Your task to perform on an android device: see creations saved in the google photos Image 0: 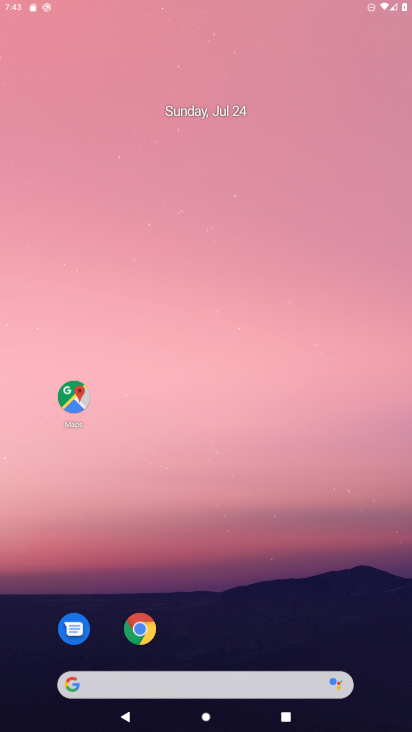
Step 0: click (203, 18)
Your task to perform on an android device: see creations saved in the google photos Image 1: 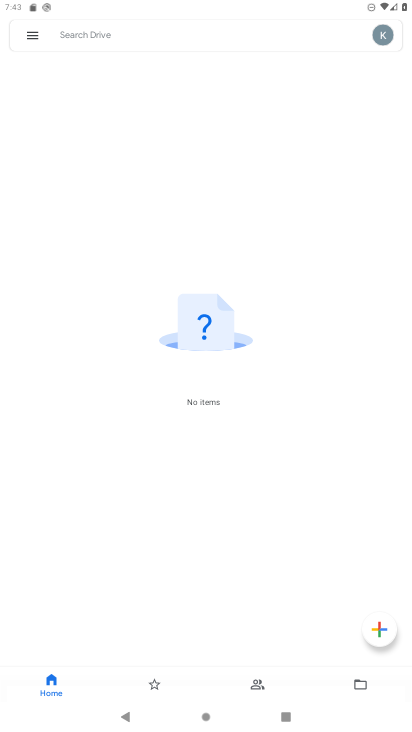
Step 1: press home button
Your task to perform on an android device: see creations saved in the google photos Image 2: 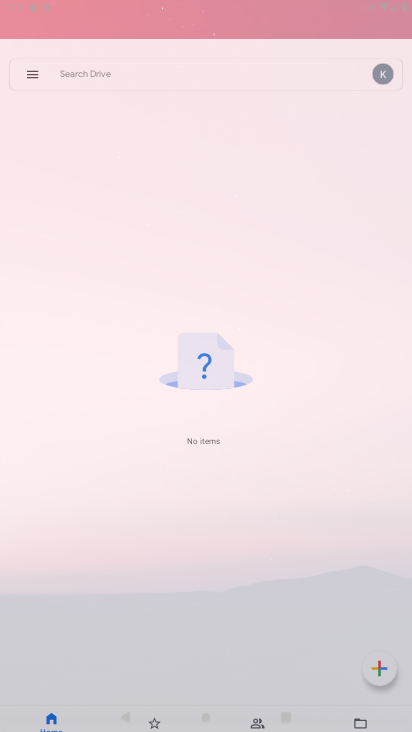
Step 2: drag from (326, 615) to (161, 4)
Your task to perform on an android device: see creations saved in the google photos Image 3: 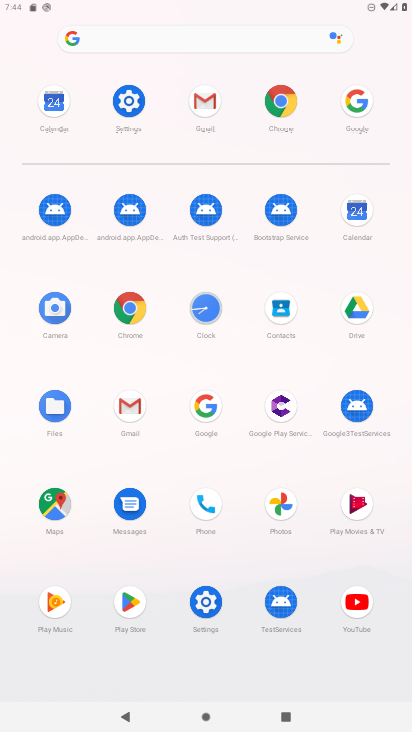
Step 3: click (268, 510)
Your task to perform on an android device: see creations saved in the google photos Image 4: 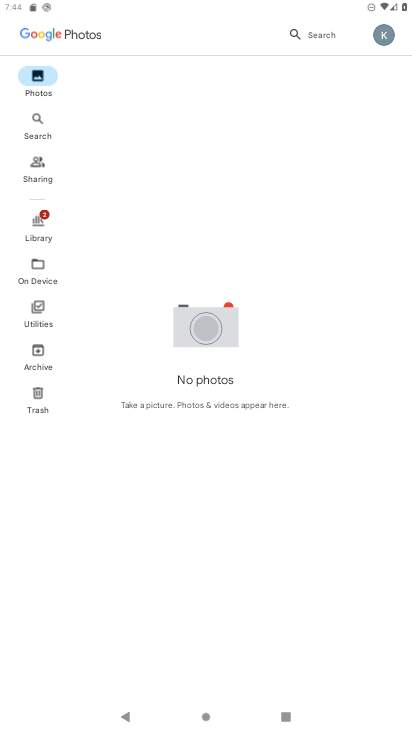
Step 4: click (301, 29)
Your task to perform on an android device: see creations saved in the google photos Image 5: 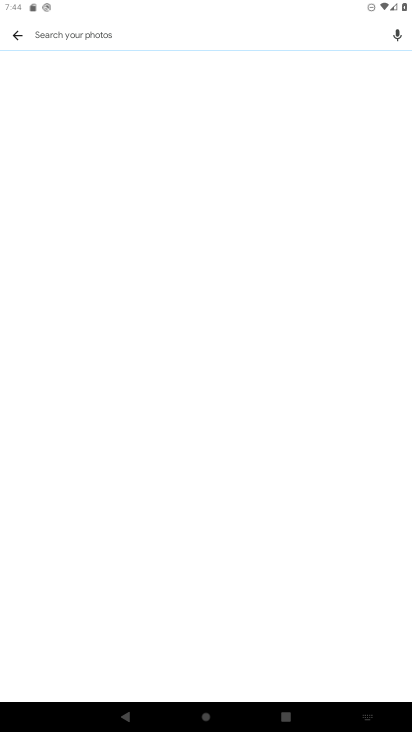
Step 5: task complete